Your task to perform on an android device: Search for "apple airpods pro" on ebay, select the first entry, and add it to the cart. Image 0: 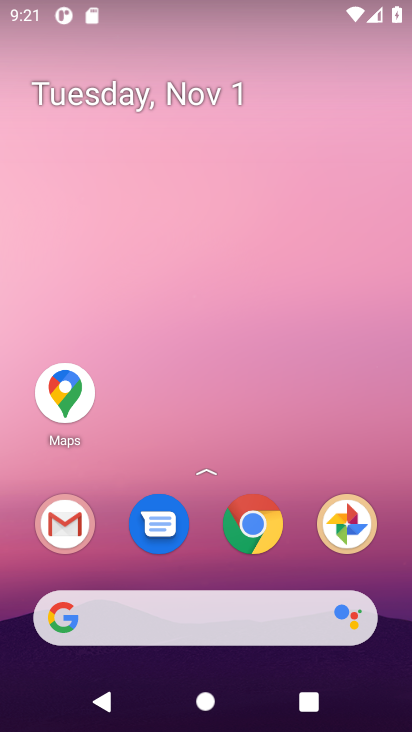
Step 0: press home button
Your task to perform on an android device: Search for "apple airpods pro" on ebay, select the first entry, and add it to the cart. Image 1: 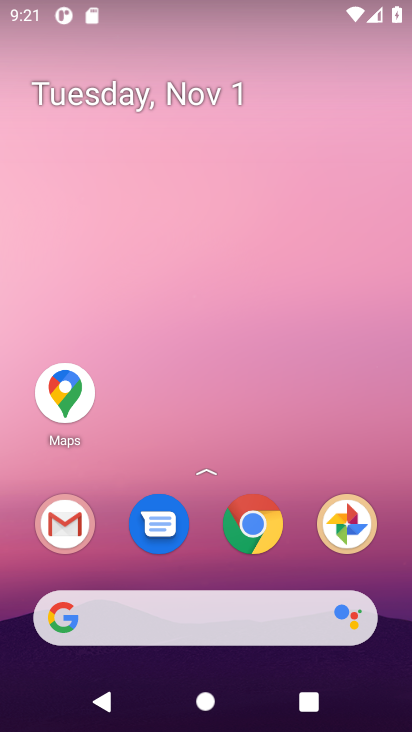
Step 1: click (101, 613)
Your task to perform on an android device: Search for "apple airpods pro" on ebay, select the first entry, and add it to the cart. Image 2: 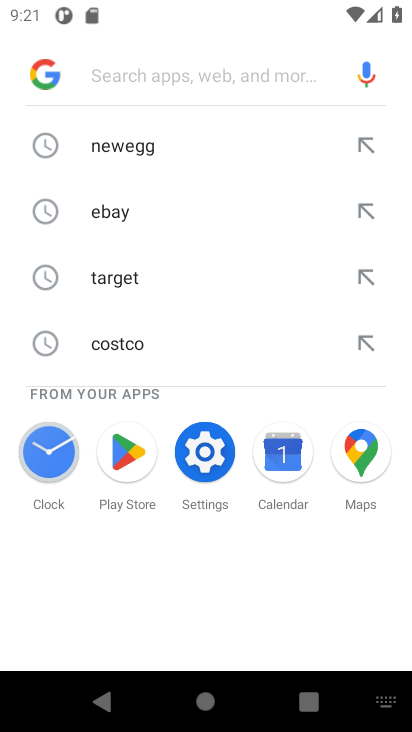
Step 2: type "ebay"
Your task to perform on an android device: Search for "apple airpods pro" on ebay, select the first entry, and add it to the cart. Image 3: 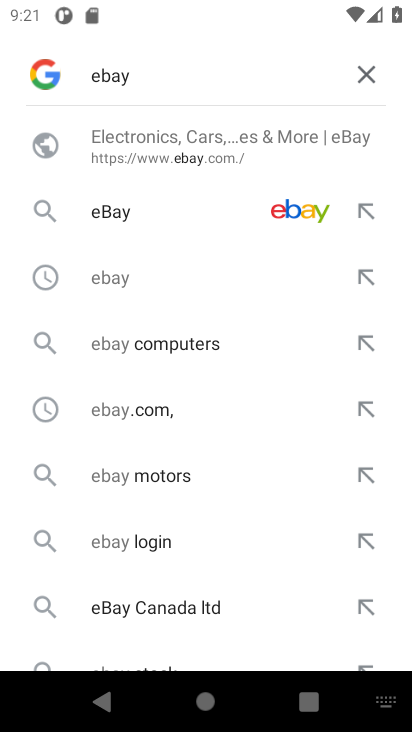
Step 3: press enter
Your task to perform on an android device: Search for "apple airpods pro" on ebay, select the first entry, and add it to the cart. Image 4: 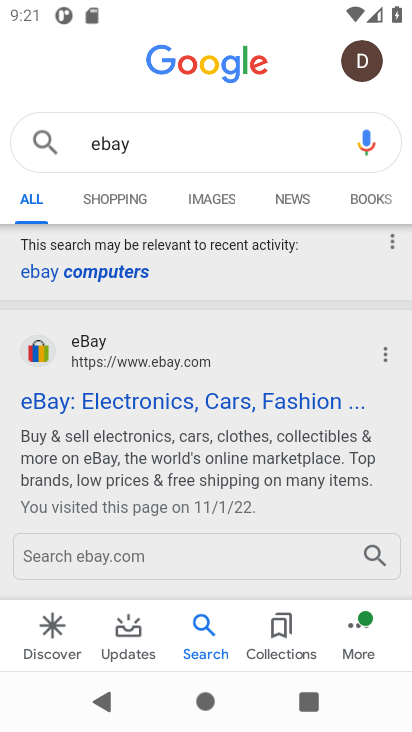
Step 4: click (143, 407)
Your task to perform on an android device: Search for "apple airpods pro" on ebay, select the first entry, and add it to the cart. Image 5: 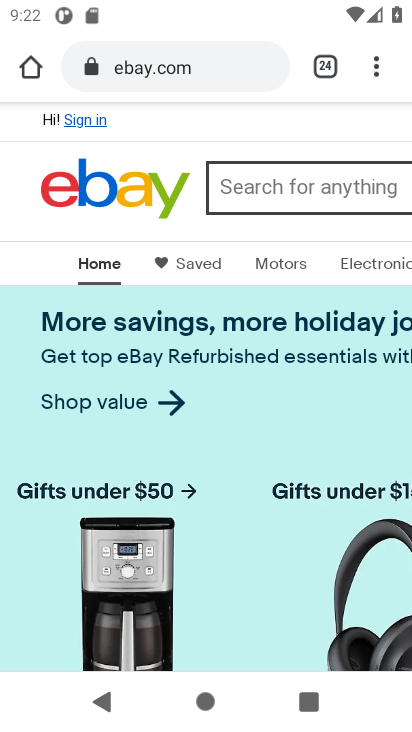
Step 5: click (265, 182)
Your task to perform on an android device: Search for "apple airpods pro" on ebay, select the first entry, and add it to the cart. Image 6: 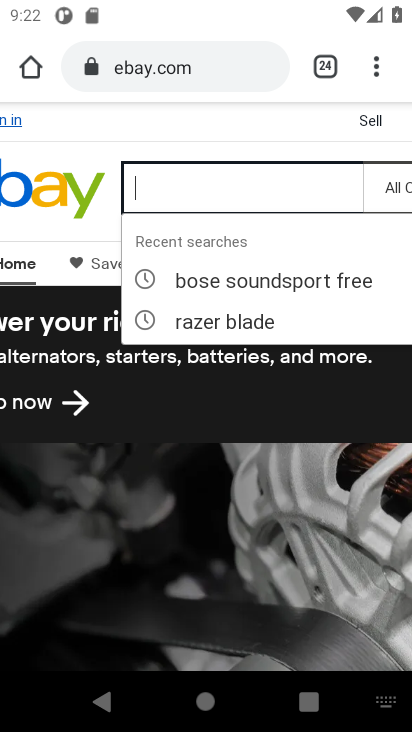
Step 6: press enter
Your task to perform on an android device: Search for "apple airpods pro" on ebay, select the first entry, and add it to the cart. Image 7: 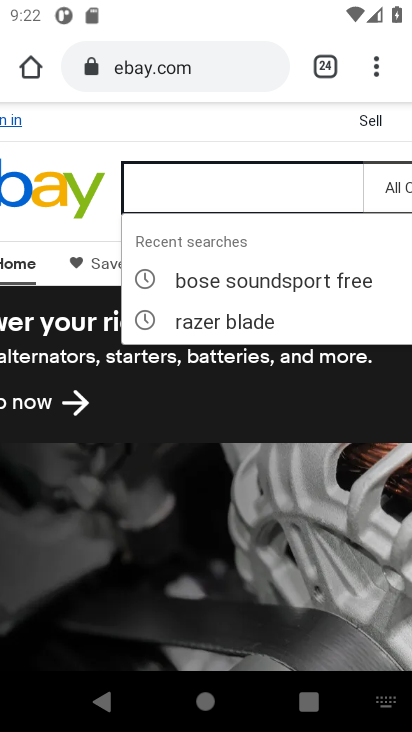
Step 7: type "apple airpods pro"
Your task to perform on an android device: Search for "apple airpods pro" on ebay, select the first entry, and add it to the cart. Image 8: 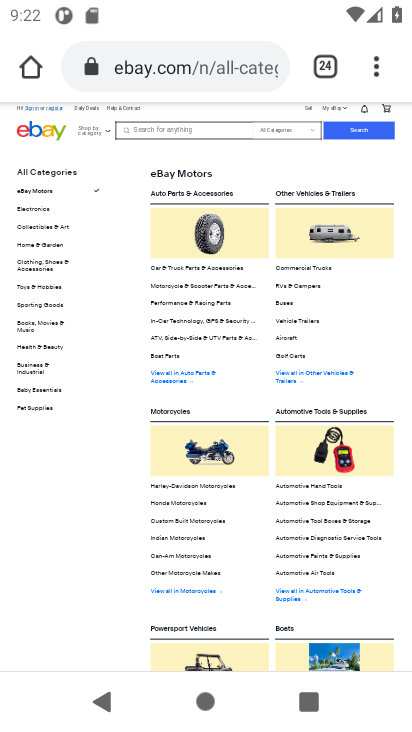
Step 8: task complete